Your task to perform on an android device: Go to privacy settings Image 0: 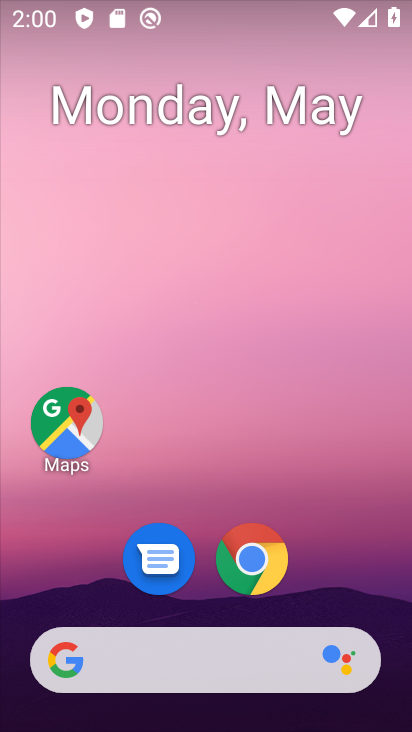
Step 0: press home button
Your task to perform on an android device: Go to privacy settings Image 1: 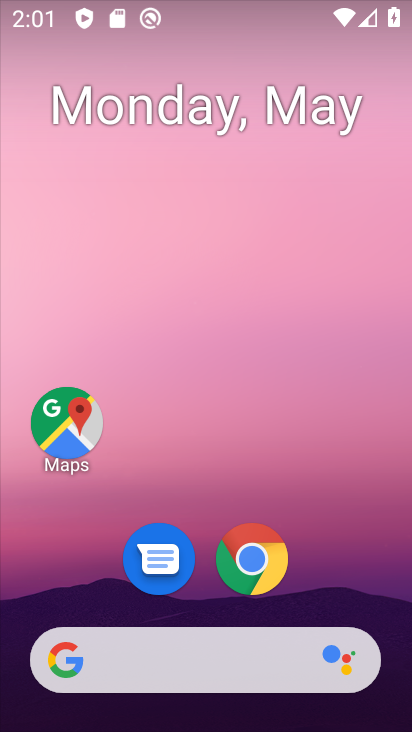
Step 1: drag from (264, 726) to (330, 94)
Your task to perform on an android device: Go to privacy settings Image 2: 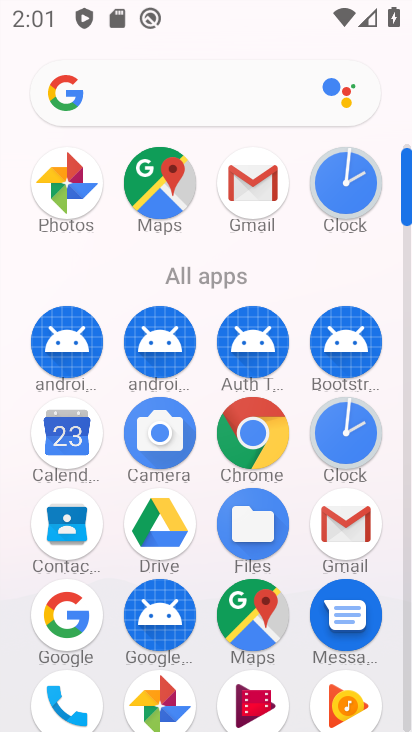
Step 2: drag from (200, 484) to (233, 300)
Your task to perform on an android device: Go to privacy settings Image 3: 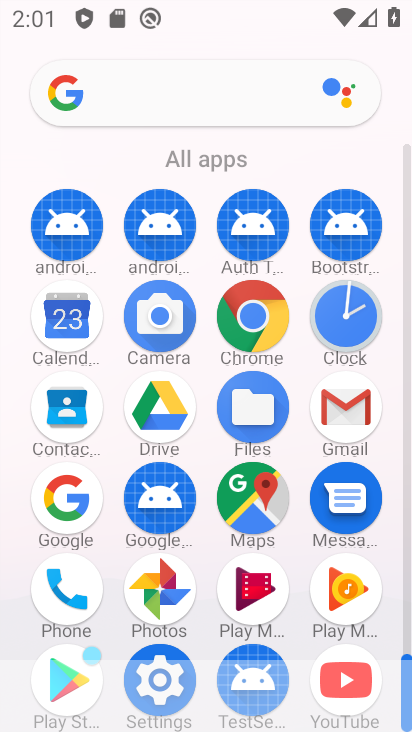
Step 3: click (160, 663)
Your task to perform on an android device: Go to privacy settings Image 4: 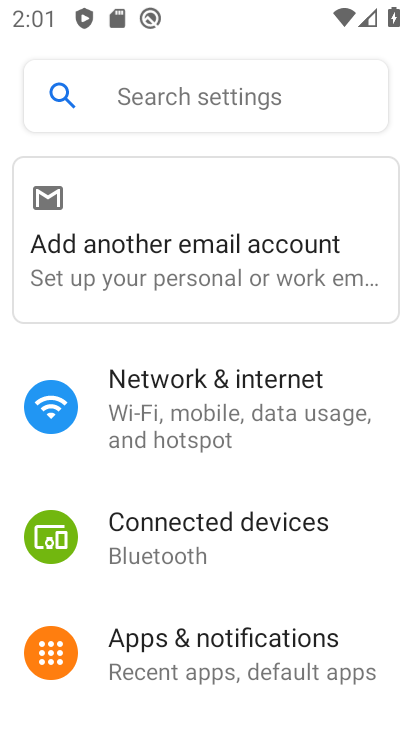
Step 4: click (136, 93)
Your task to perform on an android device: Go to privacy settings Image 5: 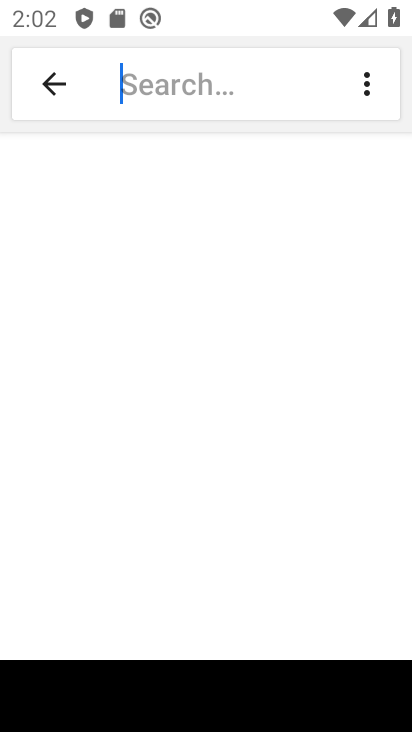
Step 5: drag from (392, 680) to (405, 461)
Your task to perform on an android device: Go to privacy settings Image 6: 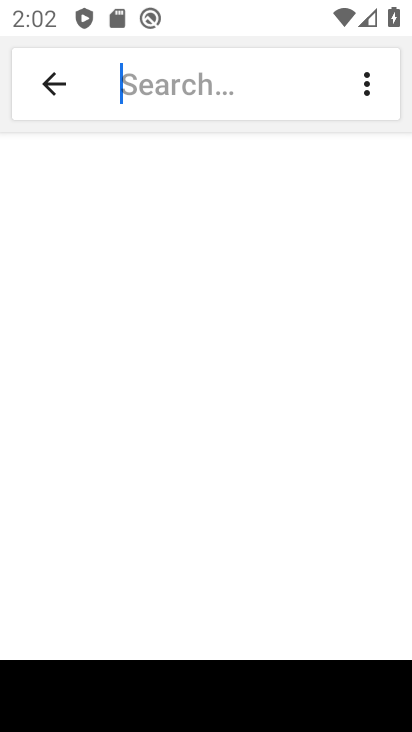
Step 6: drag from (386, 699) to (358, 566)
Your task to perform on an android device: Go to privacy settings Image 7: 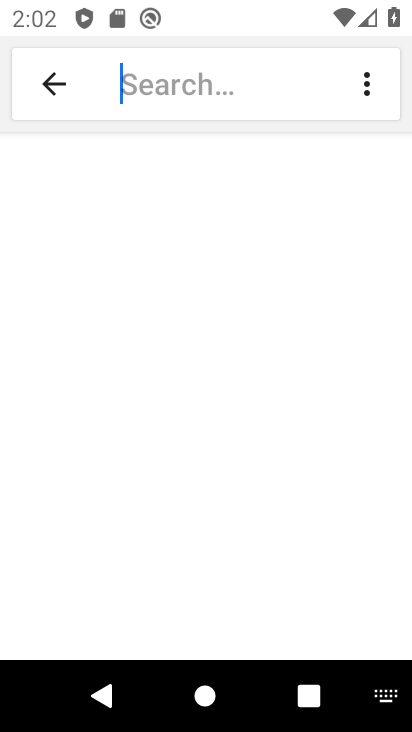
Step 7: click (392, 703)
Your task to perform on an android device: Go to privacy settings Image 8: 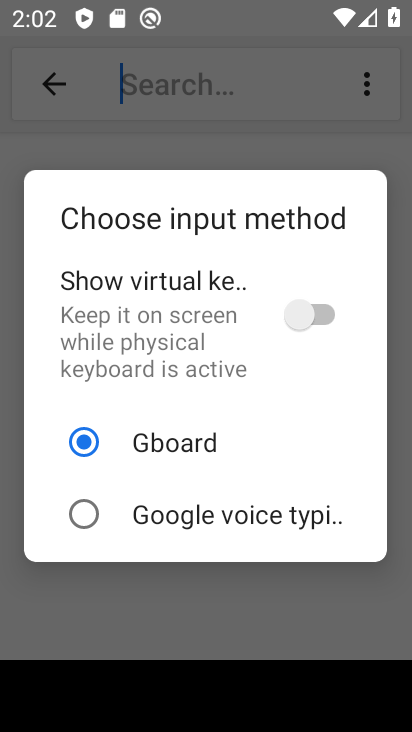
Step 8: click (302, 315)
Your task to perform on an android device: Go to privacy settings Image 9: 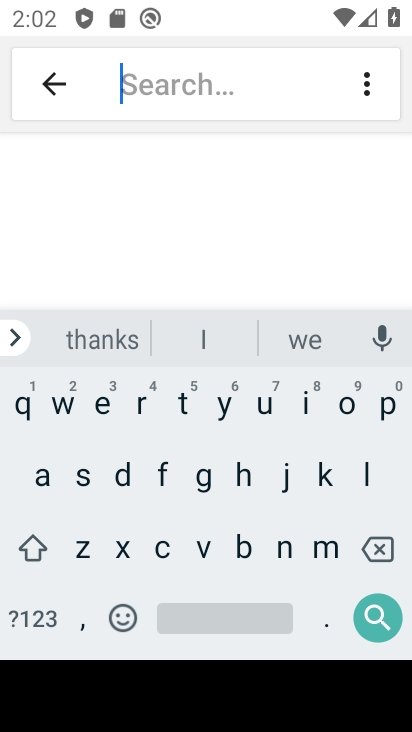
Step 9: click (381, 408)
Your task to perform on an android device: Go to privacy settings Image 10: 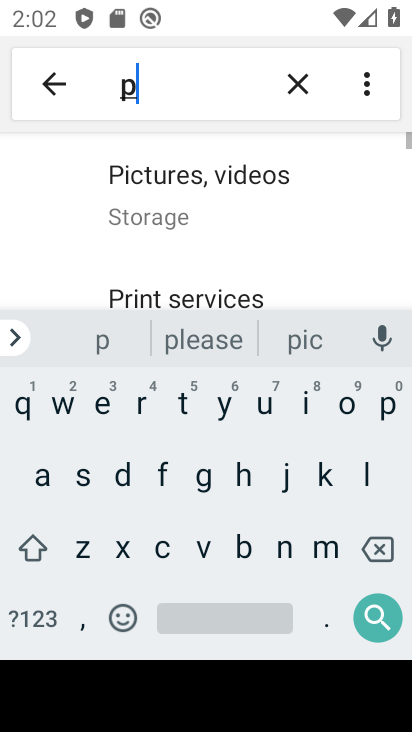
Step 10: click (134, 410)
Your task to perform on an android device: Go to privacy settings Image 11: 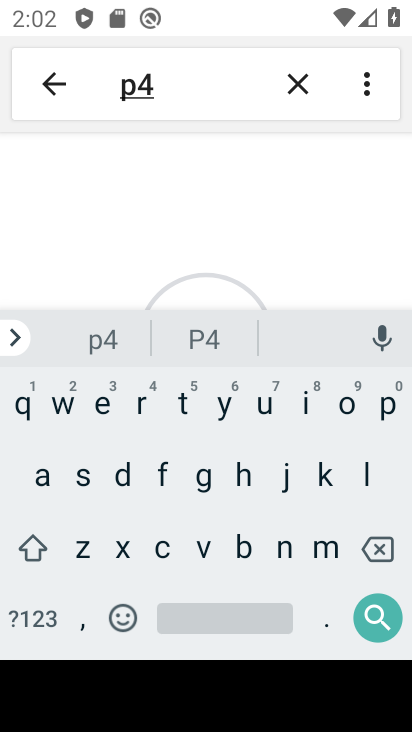
Step 11: click (365, 533)
Your task to perform on an android device: Go to privacy settings Image 12: 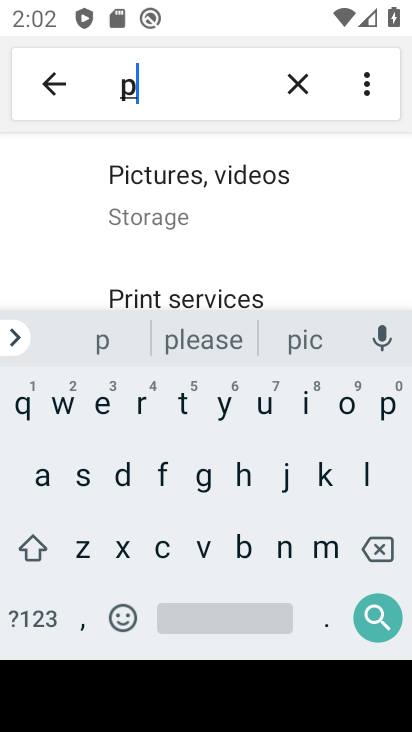
Step 12: click (140, 407)
Your task to perform on an android device: Go to privacy settings Image 13: 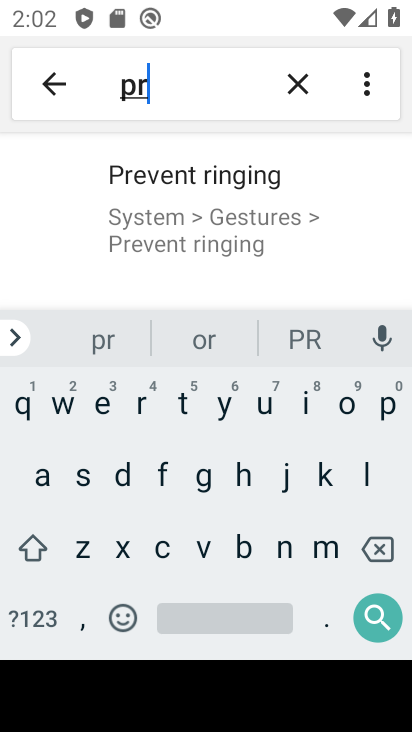
Step 13: click (300, 401)
Your task to perform on an android device: Go to privacy settings Image 14: 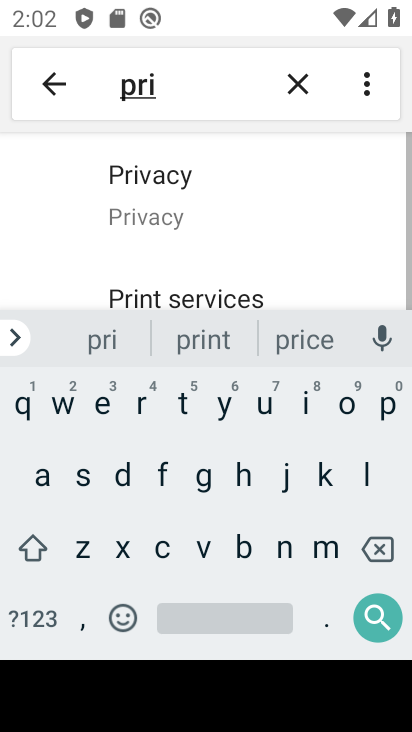
Step 14: click (203, 197)
Your task to perform on an android device: Go to privacy settings Image 15: 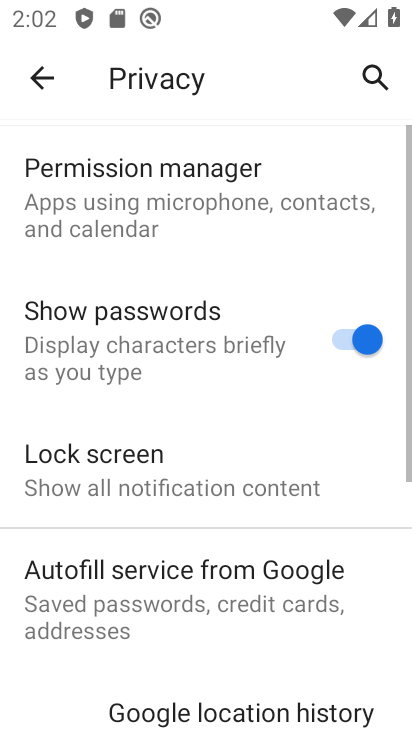
Step 15: task complete